Your task to perform on an android device: toggle improve location accuracy Image 0: 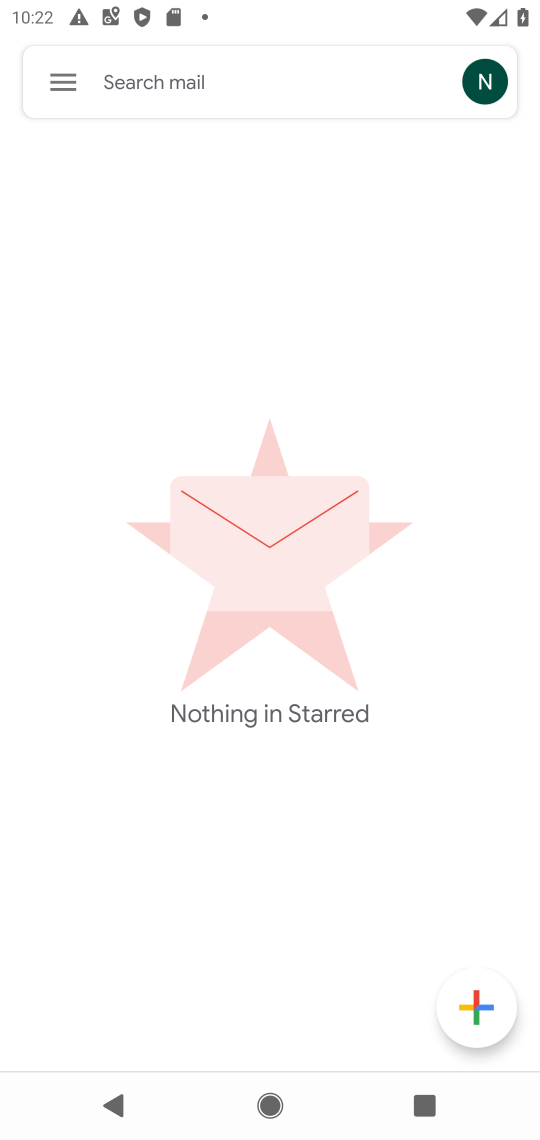
Step 0: press home button
Your task to perform on an android device: toggle improve location accuracy Image 1: 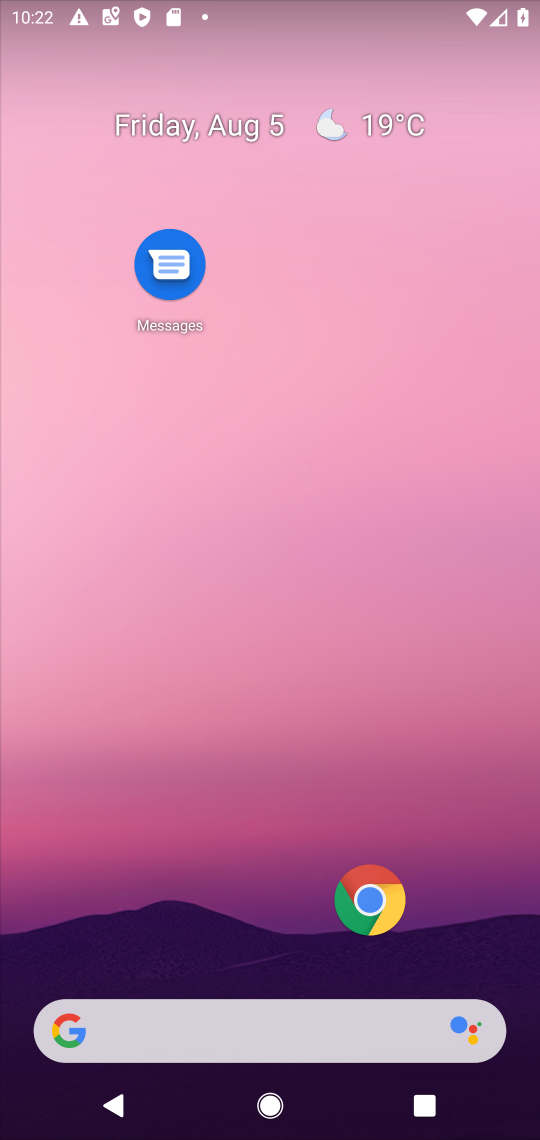
Step 1: drag from (302, 975) to (376, 93)
Your task to perform on an android device: toggle improve location accuracy Image 2: 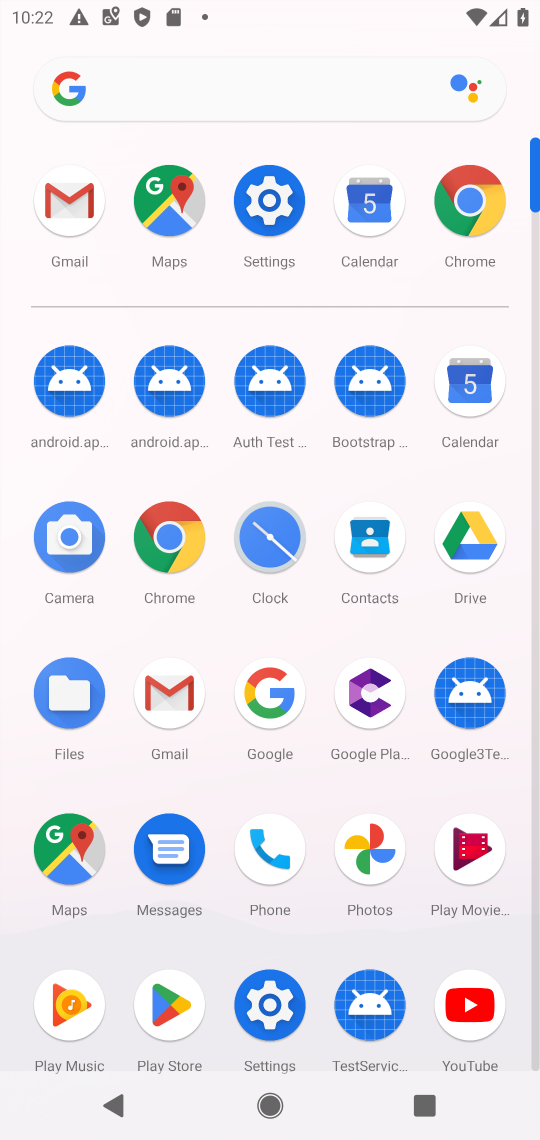
Step 2: click (292, 1002)
Your task to perform on an android device: toggle improve location accuracy Image 3: 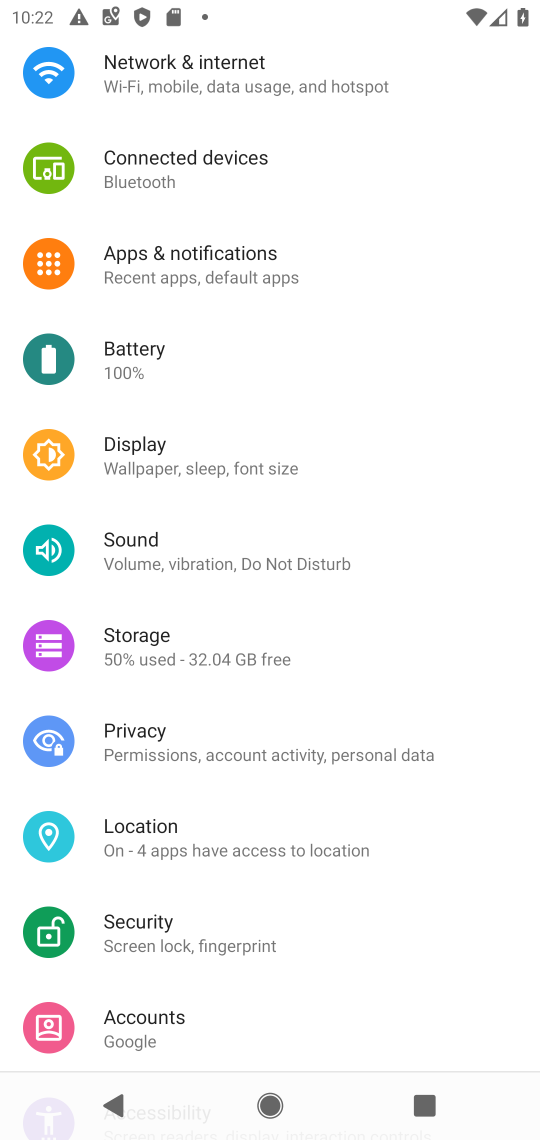
Step 3: click (220, 836)
Your task to perform on an android device: toggle improve location accuracy Image 4: 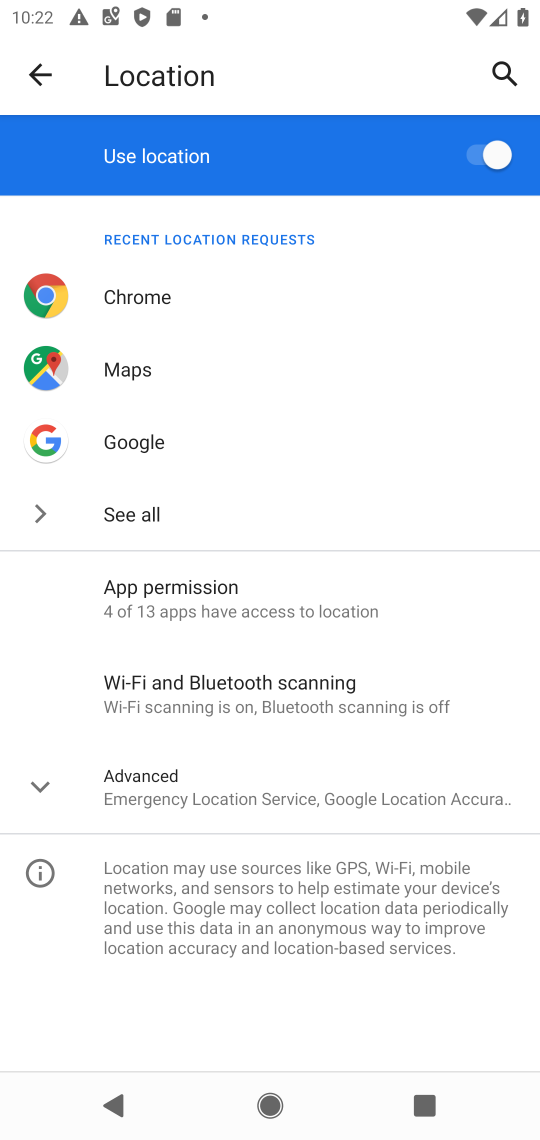
Step 4: click (194, 775)
Your task to perform on an android device: toggle improve location accuracy Image 5: 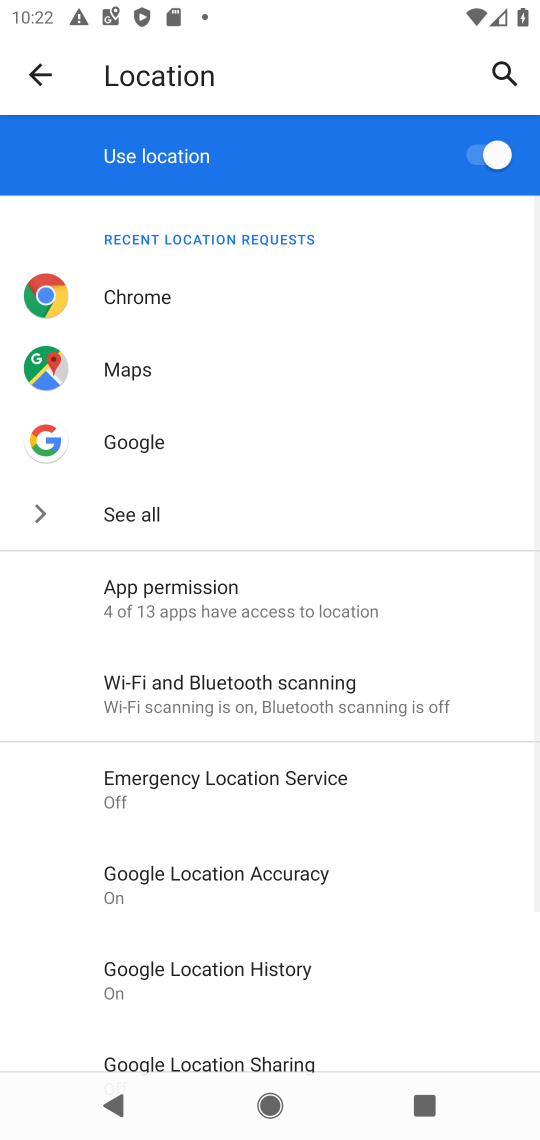
Step 5: click (226, 894)
Your task to perform on an android device: toggle improve location accuracy Image 6: 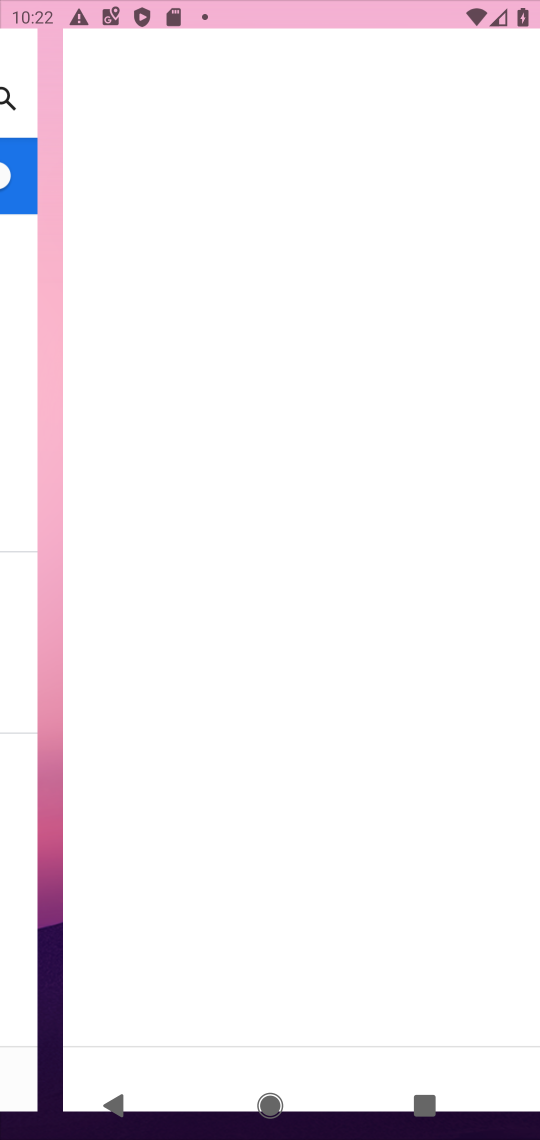
Step 6: click (215, 148)
Your task to perform on an android device: toggle improve location accuracy Image 7: 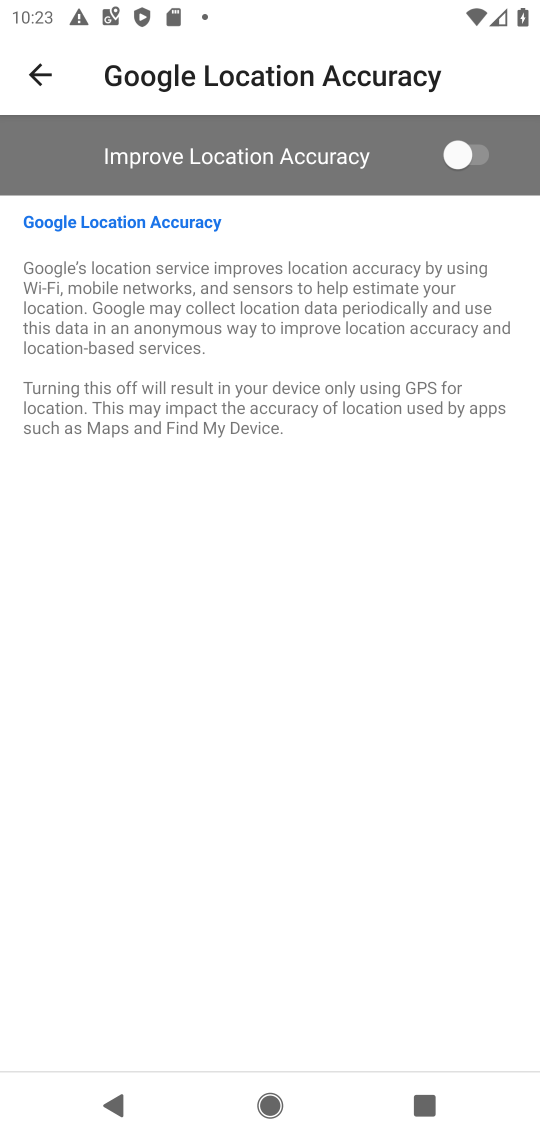
Step 7: task complete